Your task to perform on an android device: turn on bluetooth scan Image 0: 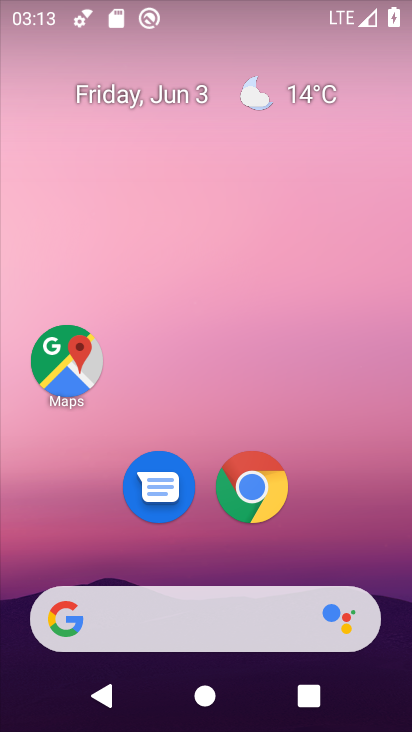
Step 0: drag from (348, 531) to (199, 2)
Your task to perform on an android device: turn on bluetooth scan Image 1: 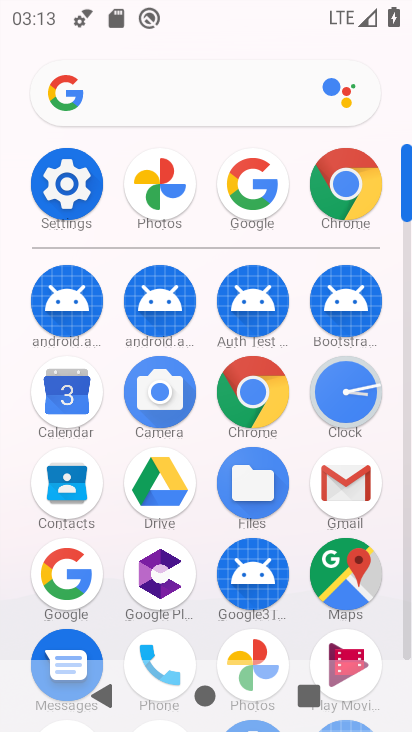
Step 1: click (66, 164)
Your task to perform on an android device: turn on bluetooth scan Image 2: 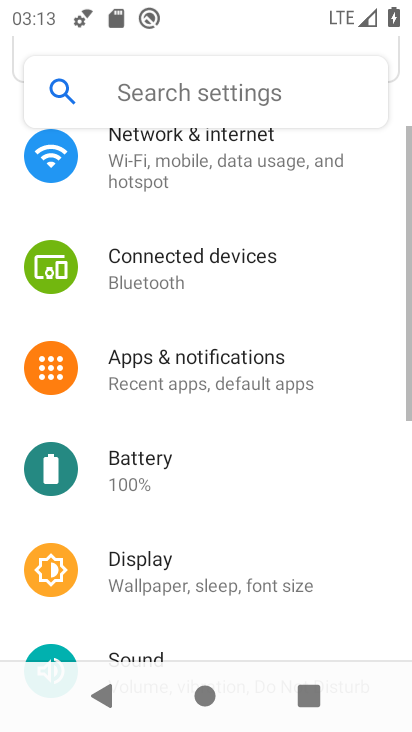
Step 2: drag from (285, 589) to (232, 33)
Your task to perform on an android device: turn on bluetooth scan Image 3: 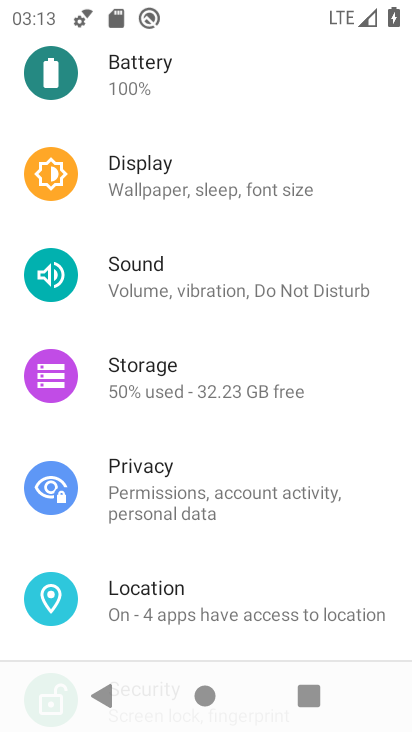
Step 3: click (242, 603)
Your task to perform on an android device: turn on bluetooth scan Image 4: 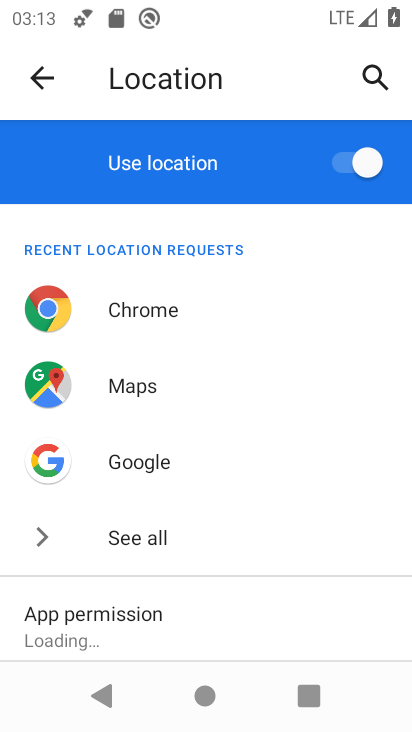
Step 4: drag from (232, 132) to (218, 101)
Your task to perform on an android device: turn on bluetooth scan Image 5: 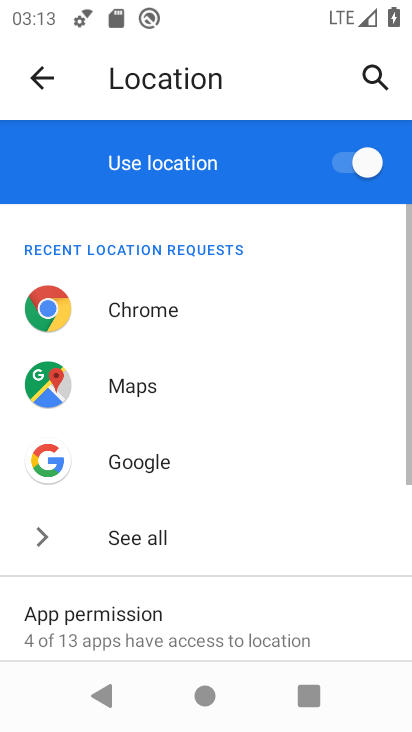
Step 5: drag from (215, 550) to (210, 133)
Your task to perform on an android device: turn on bluetooth scan Image 6: 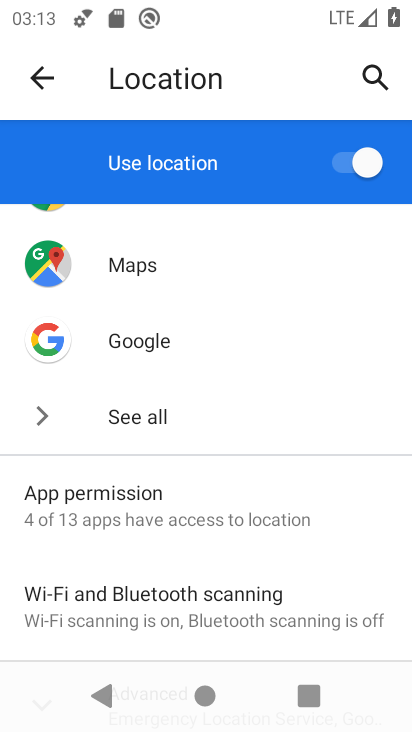
Step 6: click (232, 592)
Your task to perform on an android device: turn on bluetooth scan Image 7: 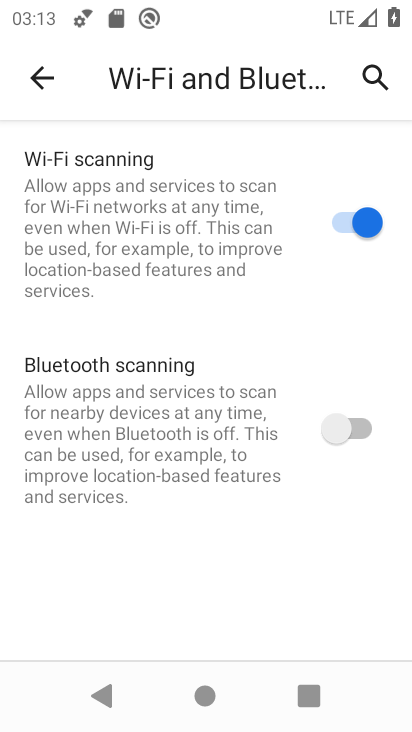
Step 7: click (351, 430)
Your task to perform on an android device: turn on bluetooth scan Image 8: 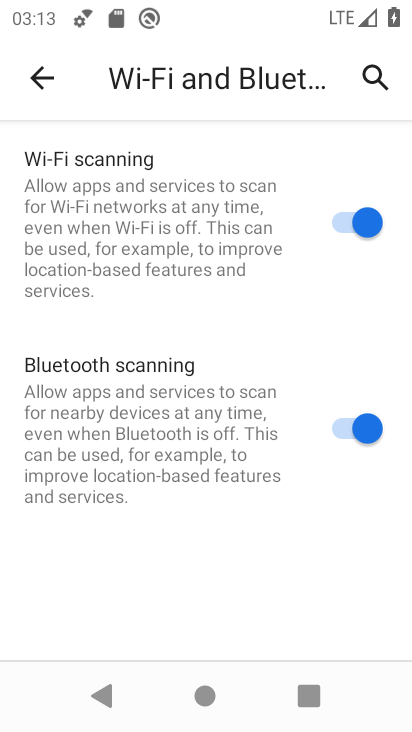
Step 8: task complete